Your task to perform on an android device: install app "Adobe Acrobat Reader: Edit PDF" Image 0: 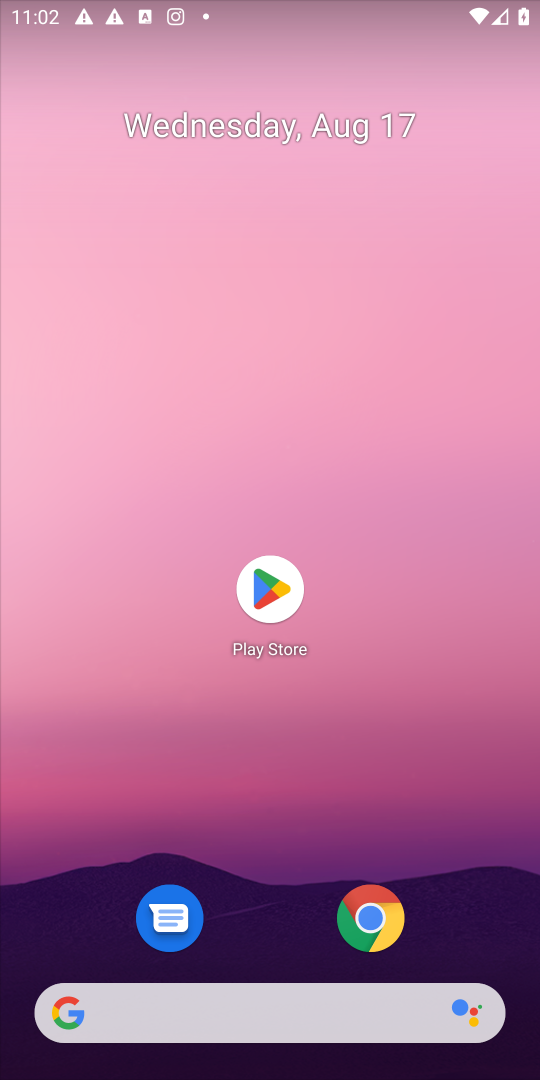
Step 0: click (270, 597)
Your task to perform on an android device: install app "Adobe Acrobat Reader: Edit PDF" Image 1: 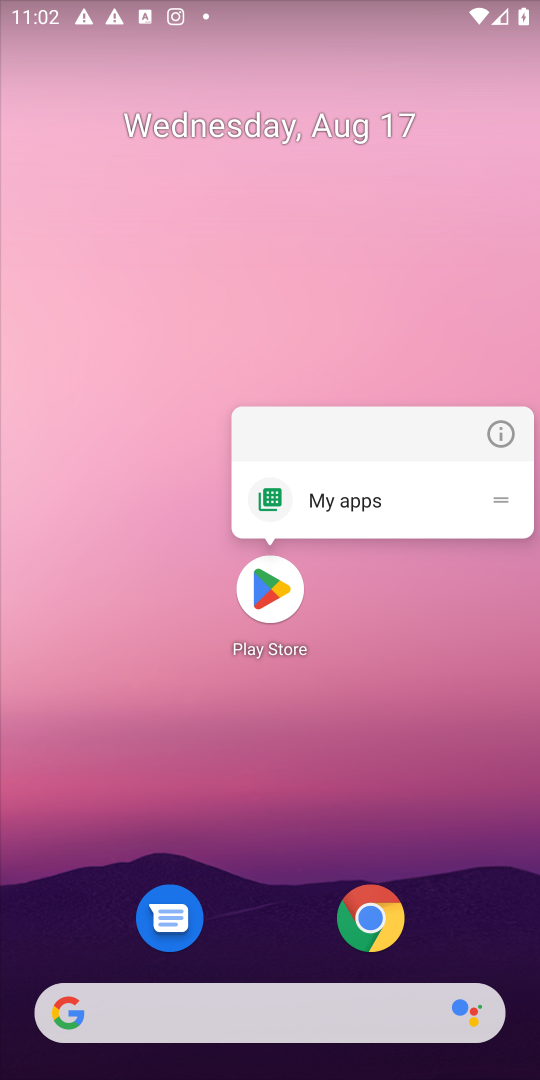
Step 1: click (270, 595)
Your task to perform on an android device: install app "Adobe Acrobat Reader: Edit PDF" Image 2: 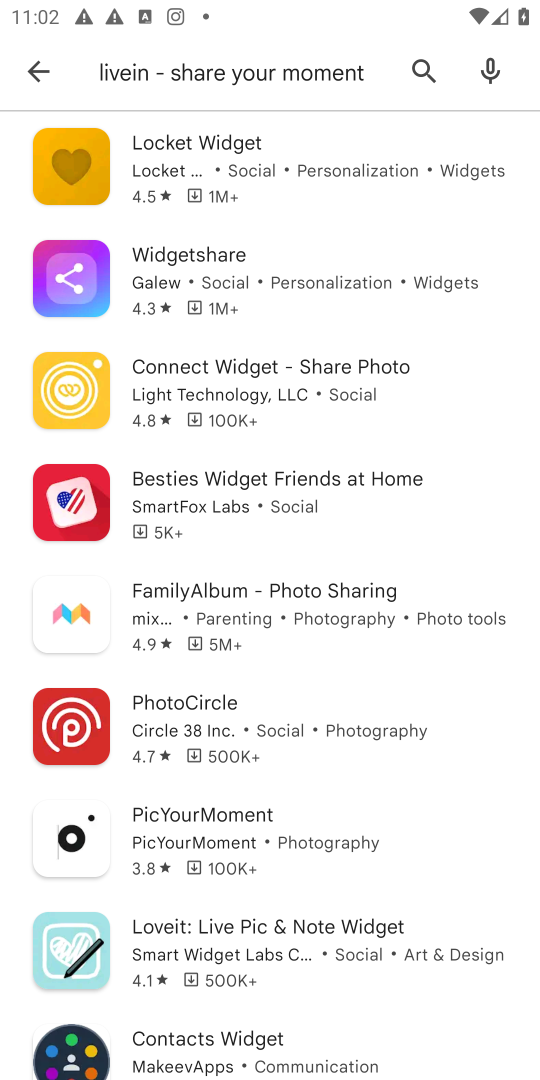
Step 2: click (424, 65)
Your task to perform on an android device: install app "Adobe Acrobat Reader: Edit PDF" Image 3: 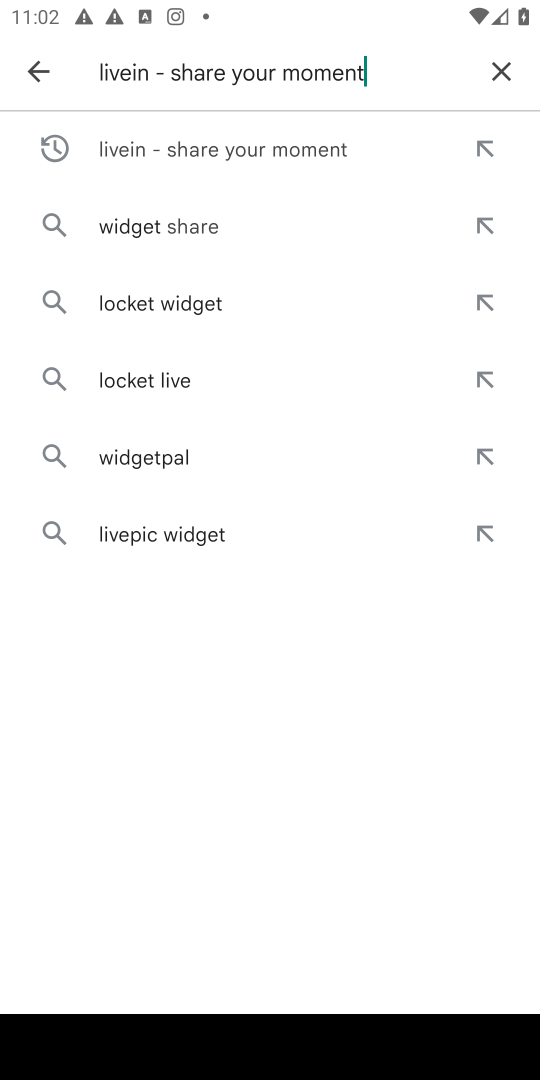
Step 3: click (487, 63)
Your task to perform on an android device: install app "Adobe Acrobat Reader: Edit PDF" Image 4: 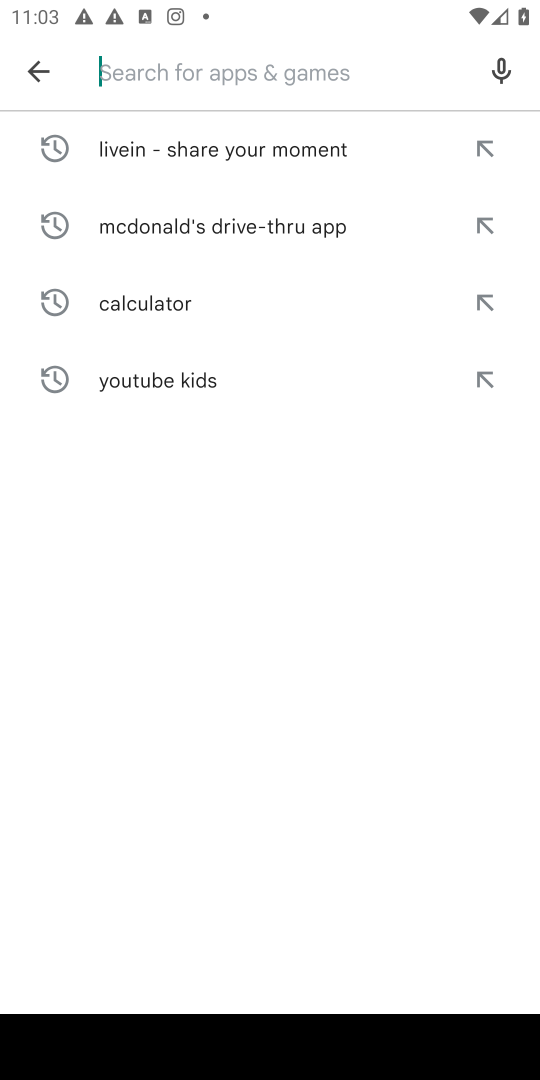
Step 4: type "Adobe Acrobat Reader: Edit PDF"
Your task to perform on an android device: install app "Adobe Acrobat Reader: Edit PDF" Image 5: 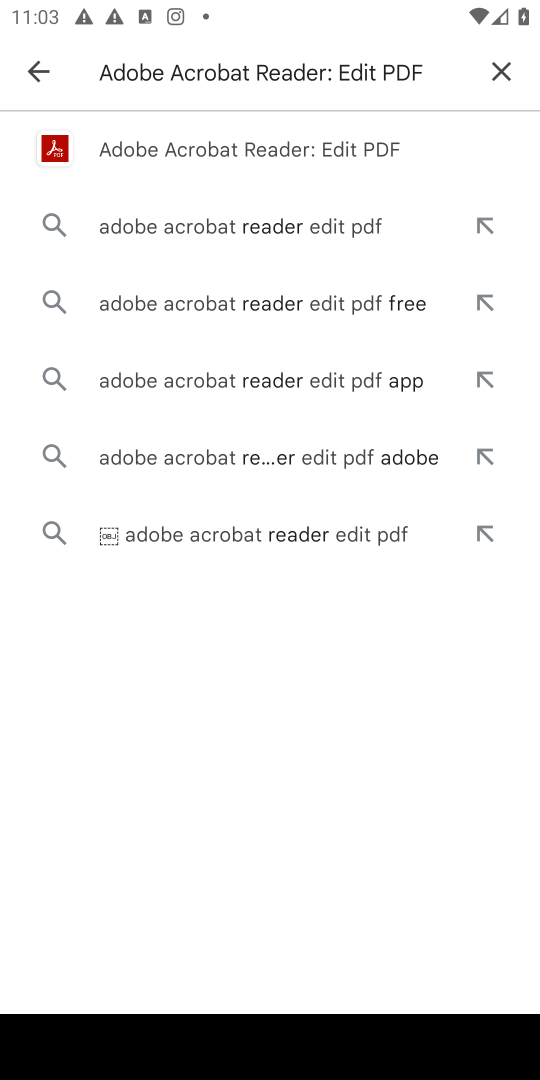
Step 5: click (237, 150)
Your task to perform on an android device: install app "Adobe Acrobat Reader: Edit PDF" Image 6: 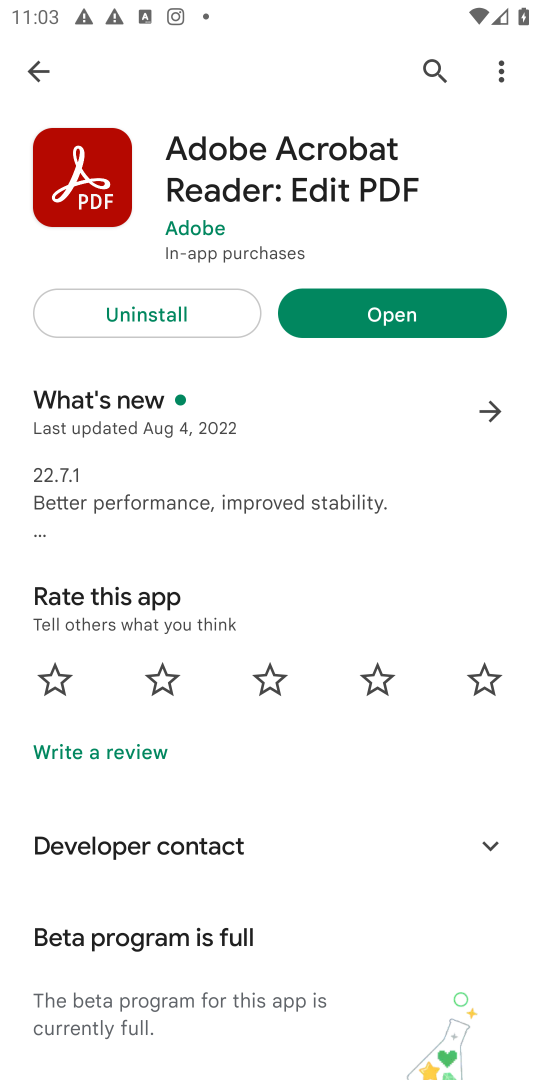
Step 6: task complete